Your task to perform on an android device: Turn off the flashlight Image 0: 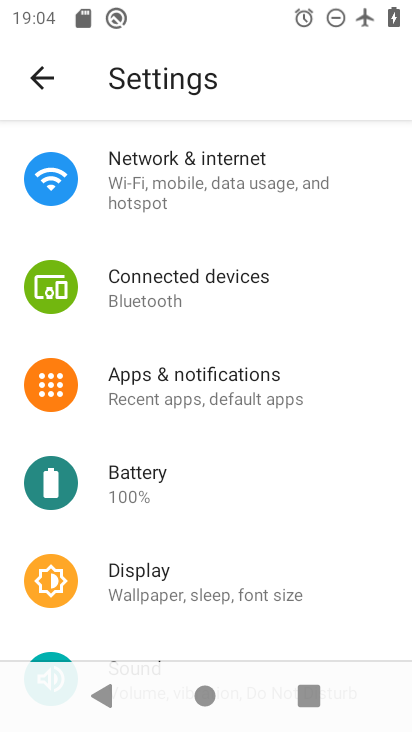
Step 0: click (146, 587)
Your task to perform on an android device: Turn off the flashlight Image 1: 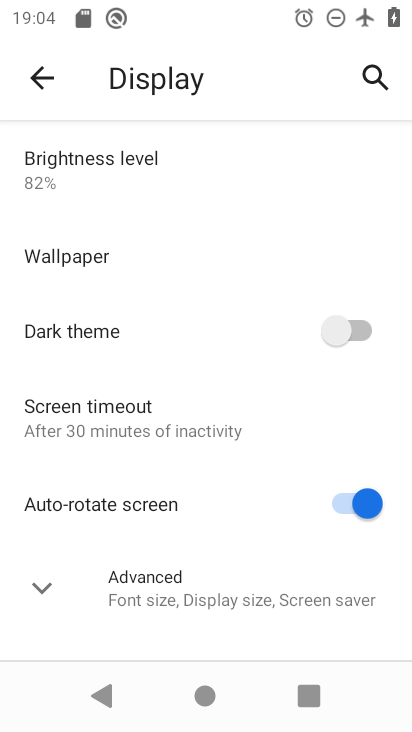
Step 1: task complete